Your task to perform on an android device: toggle show notifications on the lock screen Image 0: 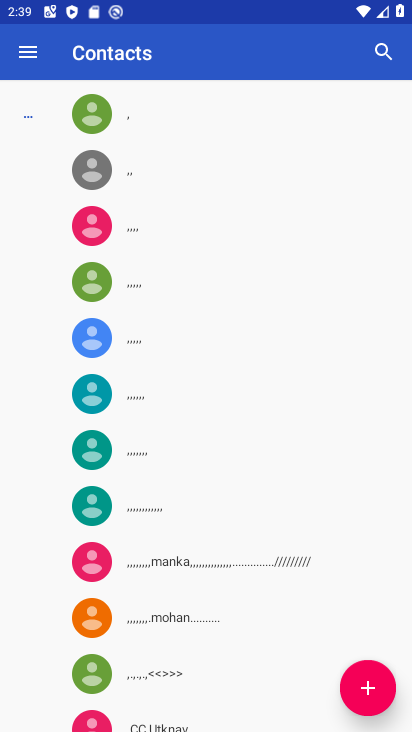
Step 0: press home button
Your task to perform on an android device: toggle show notifications on the lock screen Image 1: 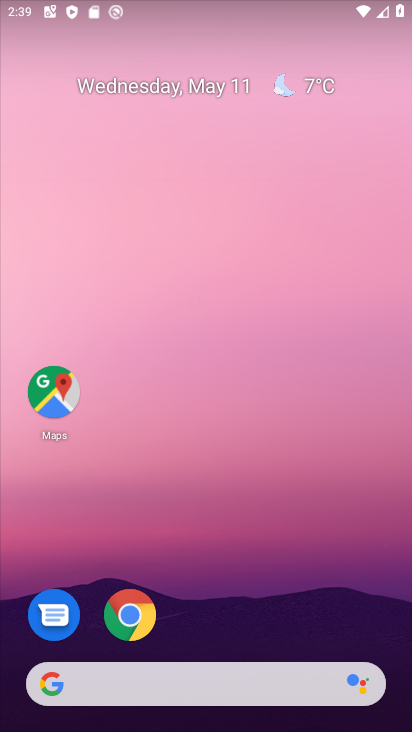
Step 1: drag from (307, 553) to (245, 112)
Your task to perform on an android device: toggle show notifications on the lock screen Image 2: 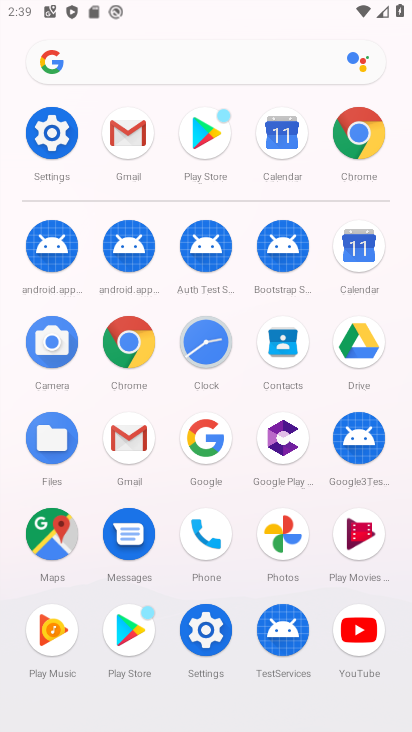
Step 2: click (53, 127)
Your task to perform on an android device: toggle show notifications on the lock screen Image 3: 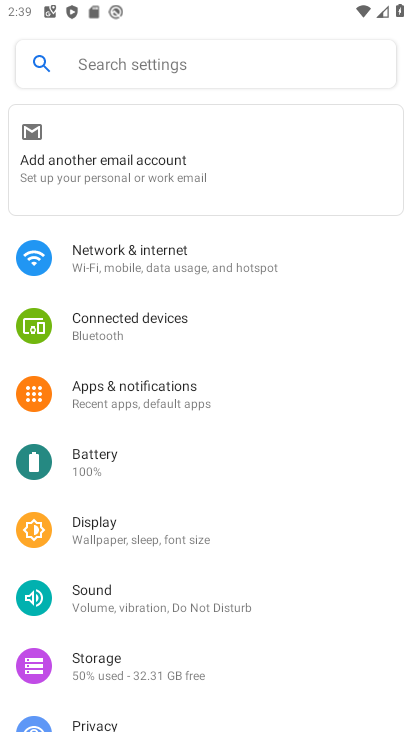
Step 3: drag from (283, 654) to (309, 193)
Your task to perform on an android device: toggle show notifications on the lock screen Image 4: 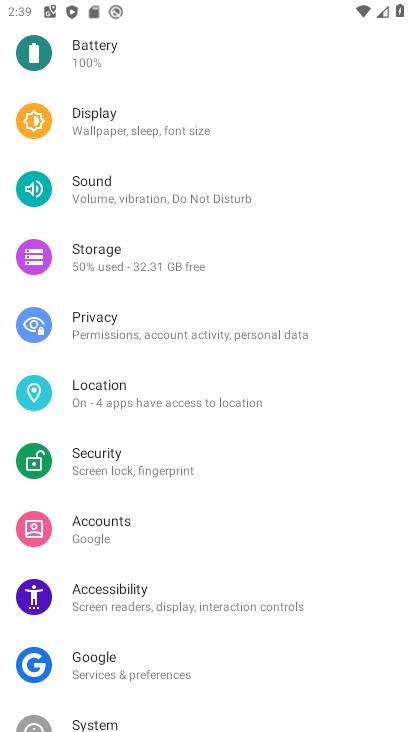
Step 4: drag from (166, 552) to (232, 203)
Your task to perform on an android device: toggle show notifications on the lock screen Image 5: 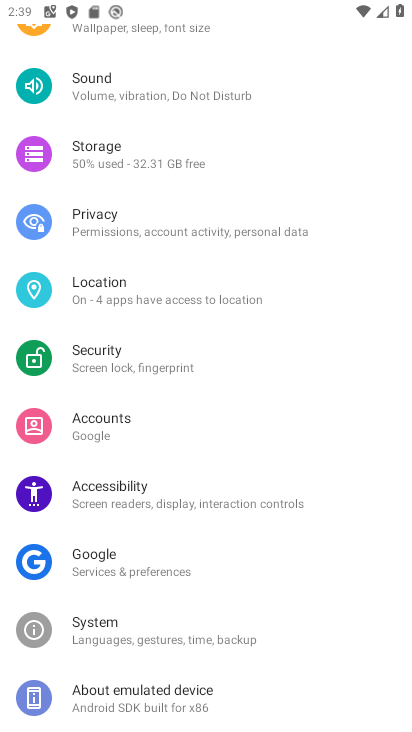
Step 5: drag from (164, 242) to (173, 575)
Your task to perform on an android device: toggle show notifications on the lock screen Image 6: 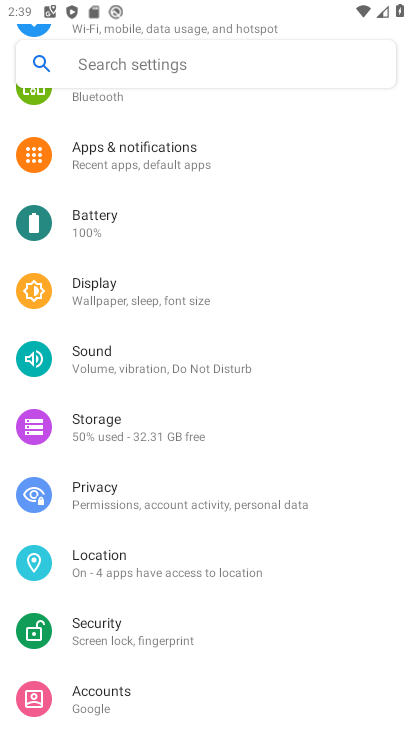
Step 6: drag from (207, 245) to (217, 627)
Your task to perform on an android device: toggle show notifications on the lock screen Image 7: 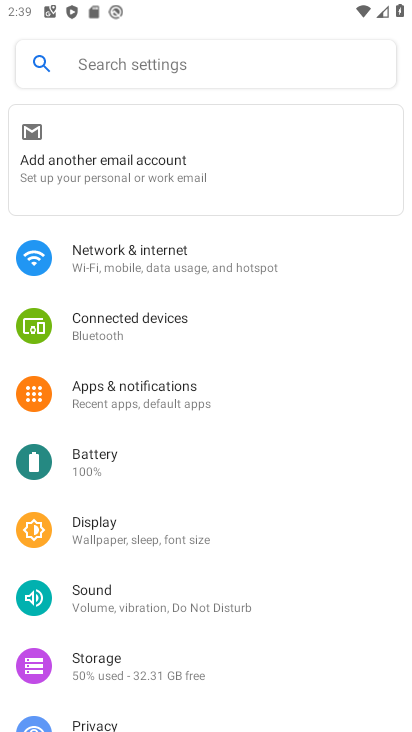
Step 7: click (163, 388)
Your task to perform on an android device: toggle show notifications on the lock screen Image 8: 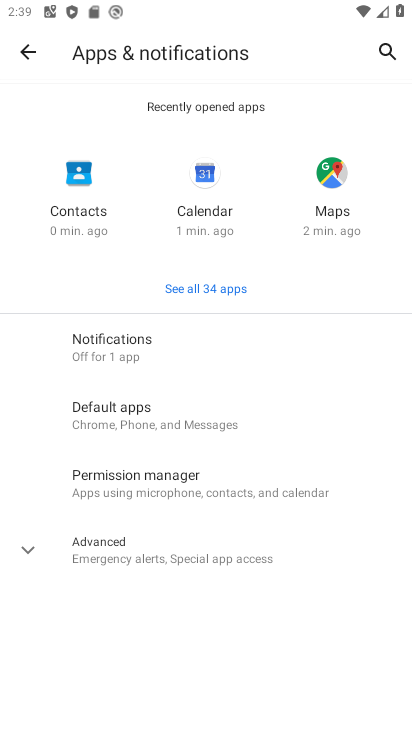
Step 8: click (123, 532)
Your task to perform on an android device: toggle show notifications on the lock screen Image 9: 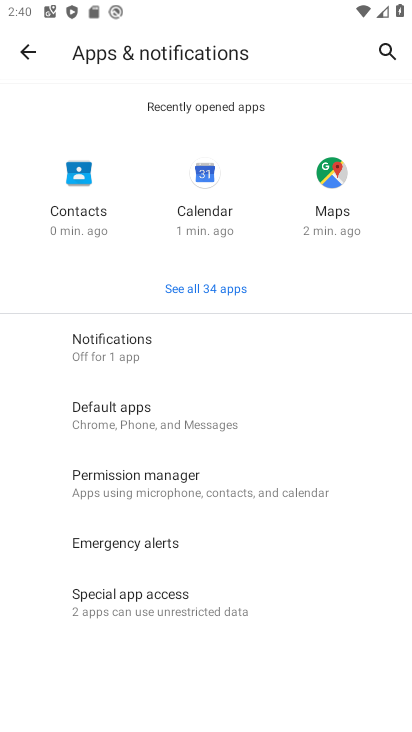
Step 9: click (143, 340)
Your task to perform on an android device: toggle show notifications on the lock screen Image 10: 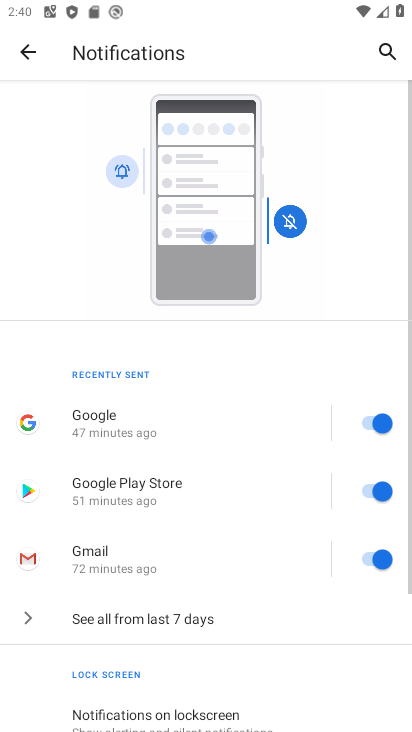
Step 10: drag from (173, 671) to (268, 299)
Your task to perform on an android device: toggle show notifications on the lock screen Image 11: 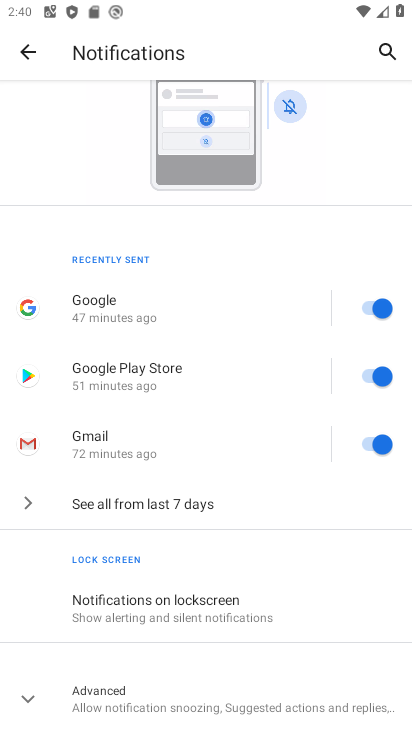
Step 11: click (187, 598)
Your task to perform on an android device: toggle show notifications on the lock screen Image 12: 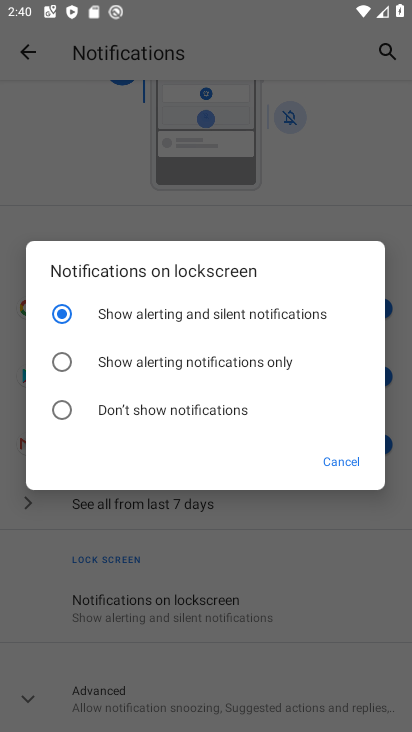
Step 12: click (220, 370)
Your task to perform on an android device: toggle show notifications on the lock screen Image 13: 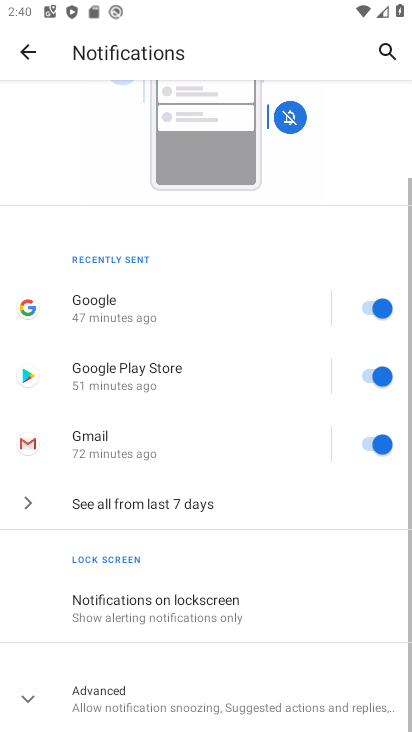
Step 13: task complete